Your task to perform on an android device: What's the weather? Image 0: 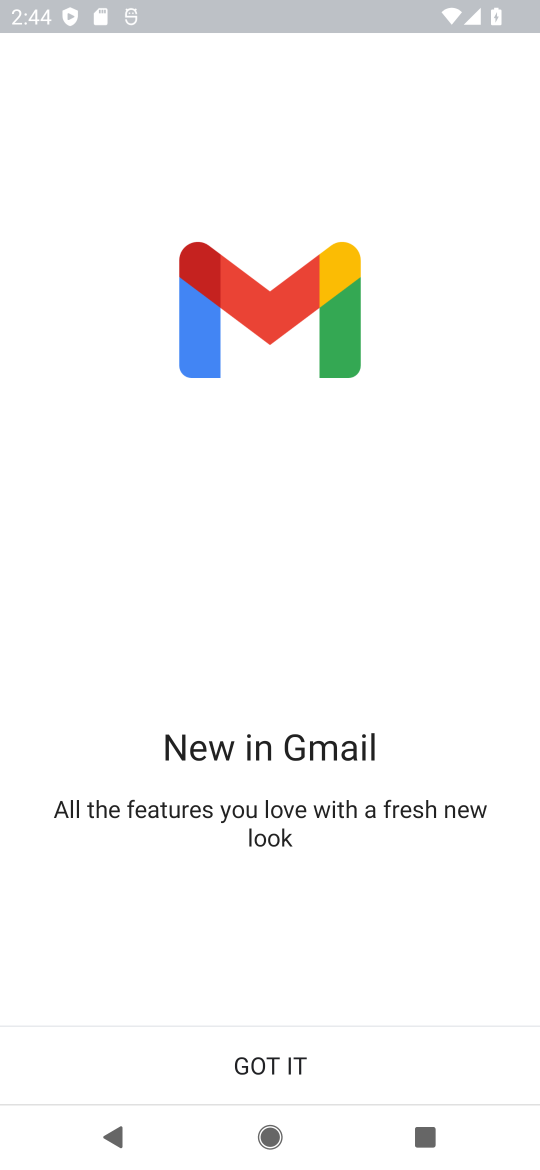
Step 0: click (292, 1060)
Your task to perform on an android device: What's the weather? Image 1: 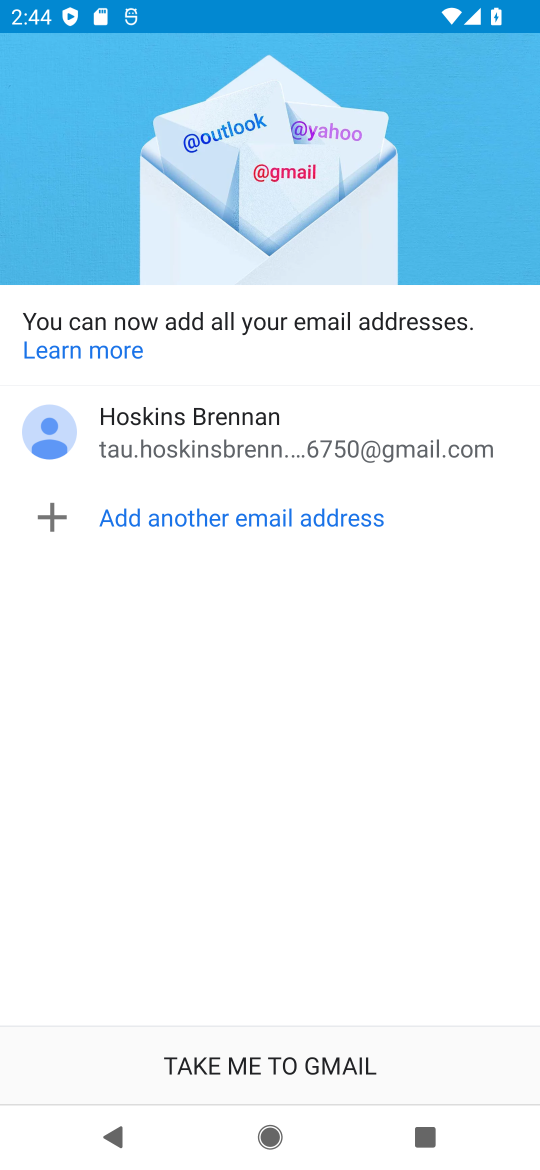
Step 1: press home button
Your task to perform on an android device: What's the weather? Image 2: 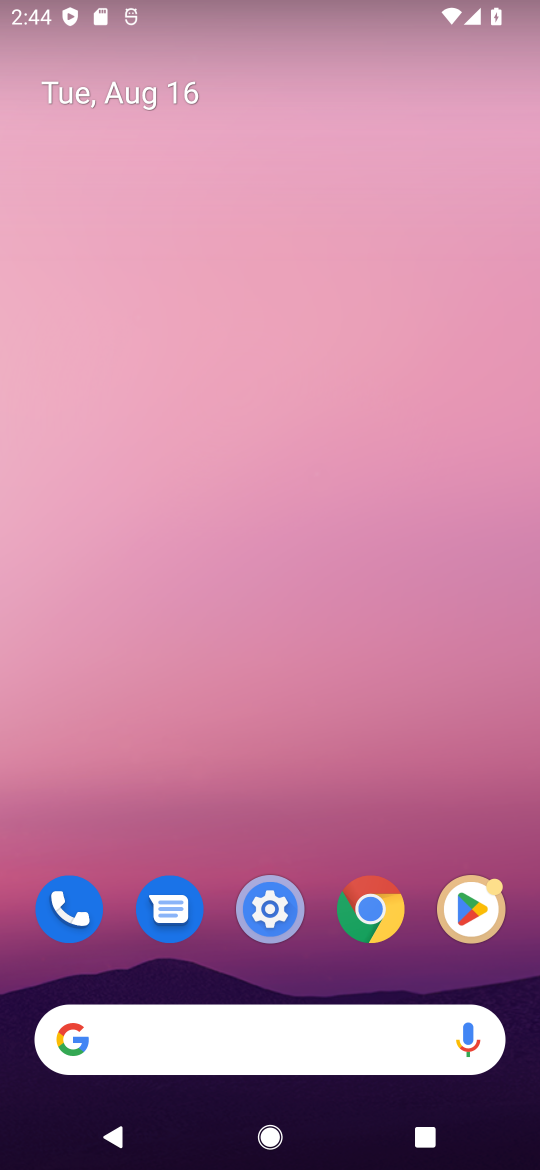
Step 2: drag from (248, 864) to (277, 20)
Your task to perform on an android device: What's the weather? Image 3: 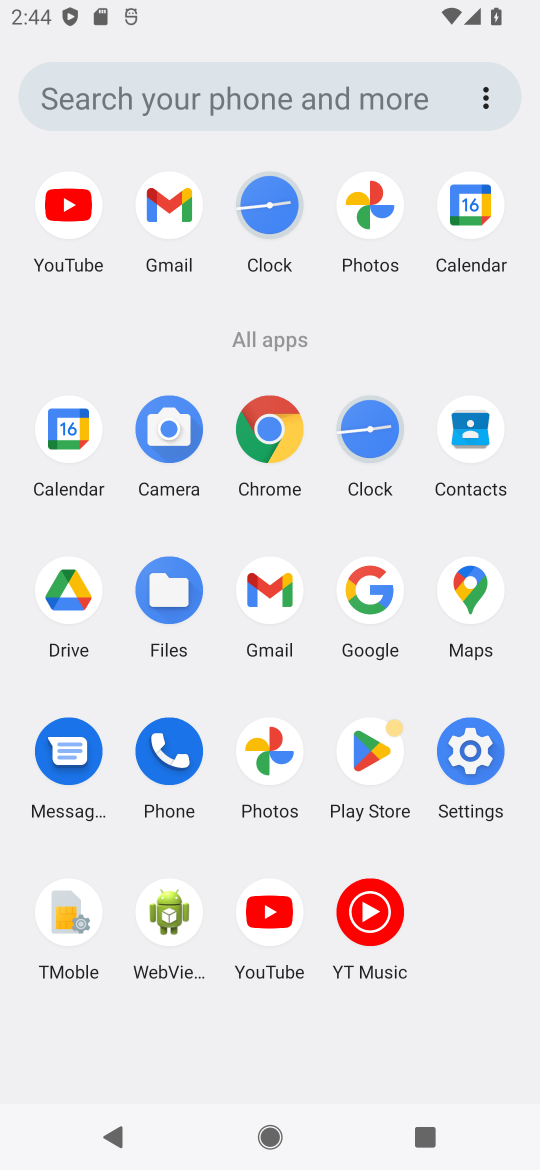
Step 3: click (365, 589)
Your task to perform on an android device: What's the weather? Image 4: 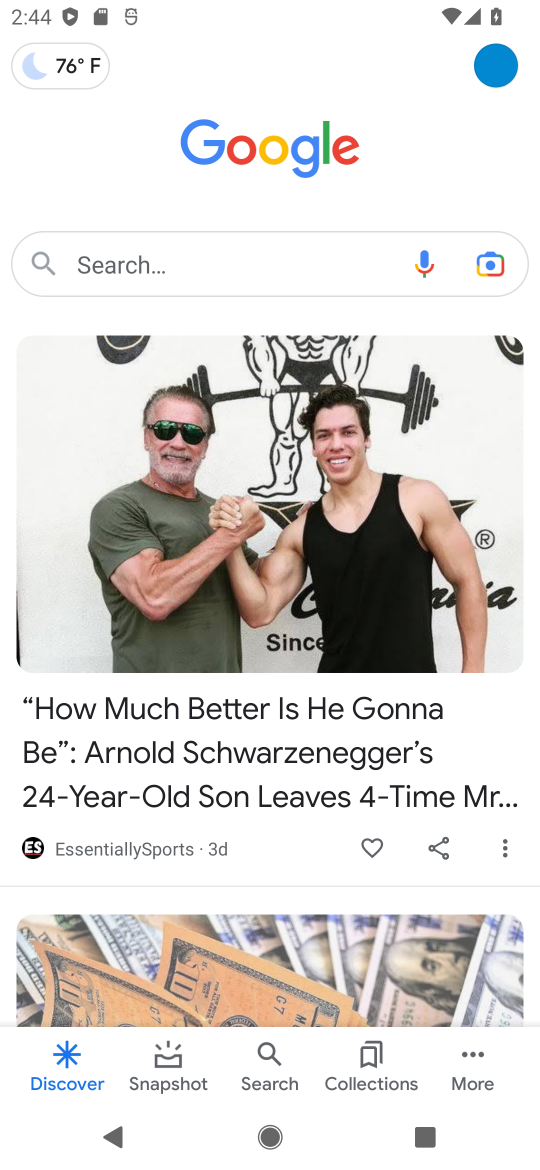
Step 4: click (115, 263)
Your task to perform on an android device: What's the weather? Image 5: 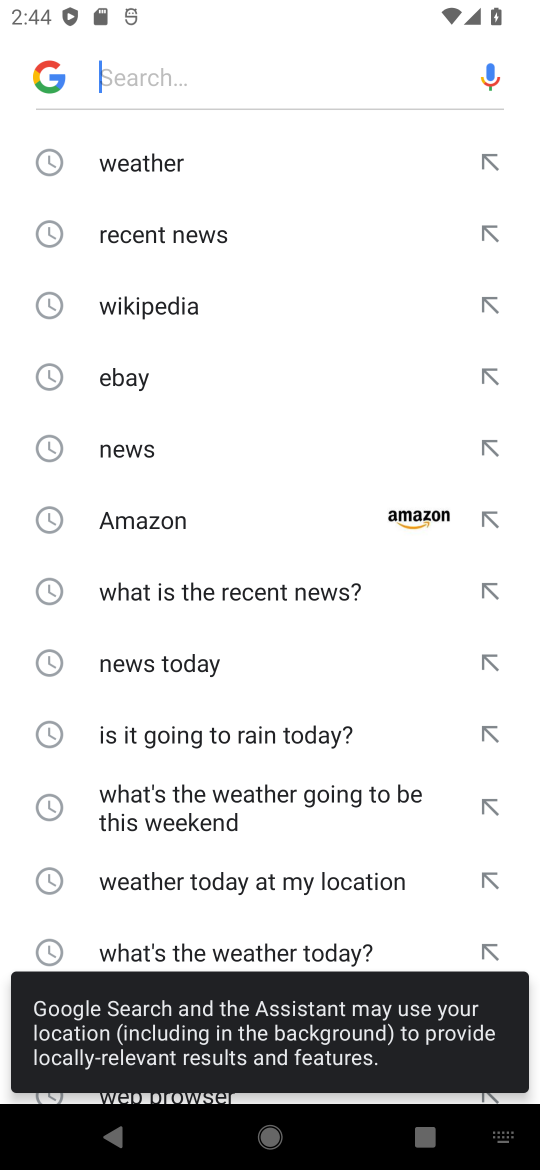
Step 5: click (127, 172)
Your task to perform on an android device: What's the weather? Image 6: 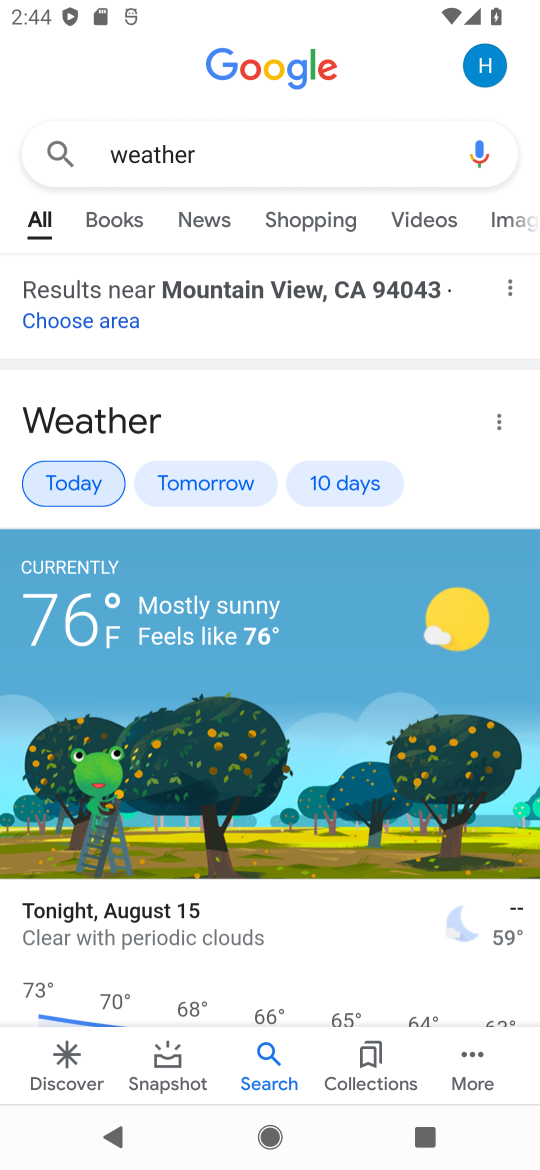
Step 6: click (355, 546)
Your task to perform on an android device: What's the weather? Image 7: 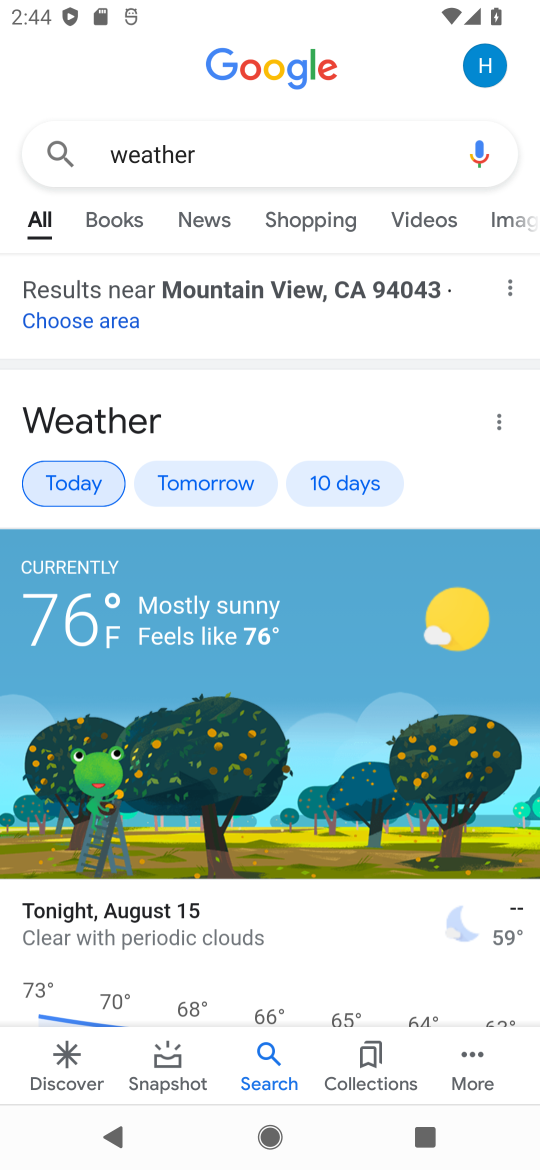
Step 7: task complete